Your task to perform on an android device: change the clock display to digital Image 0: 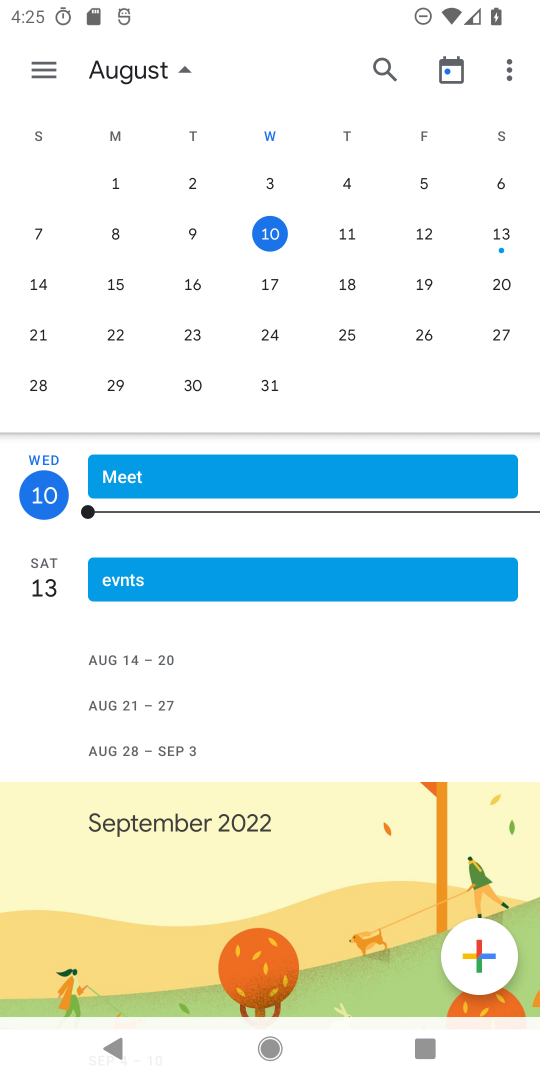
Step 0: press home button
Your task to perform on an android device: change the clock display to digital Image 1: 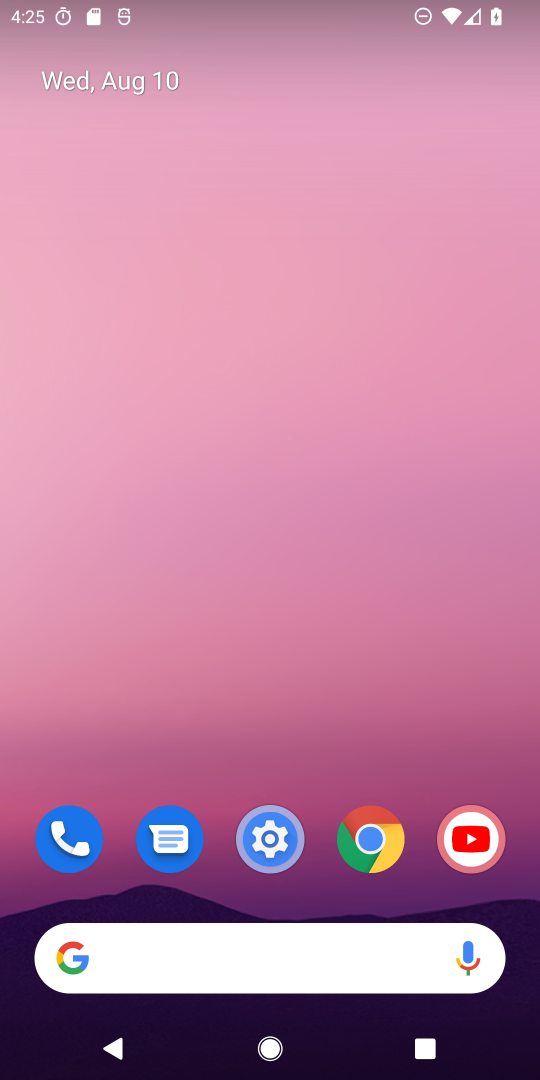
Step 1: drag from (64, 1016) to (169, 433)
Your task to perform on an android device: change the clock display to digital Image 2: 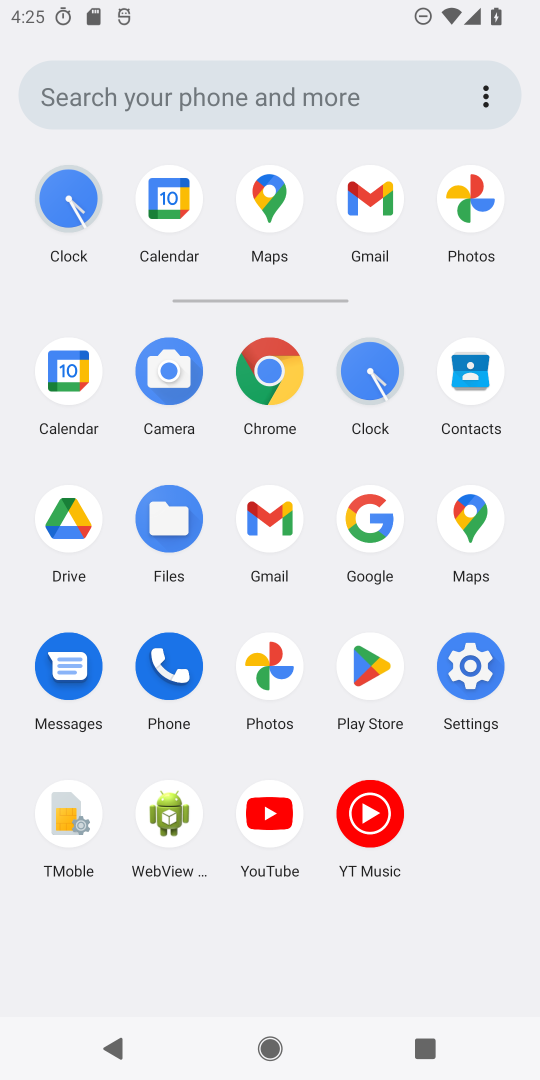
Step 2: click (384, 411)
Your task to perform on an android device: change the clock display to digital Image 3: 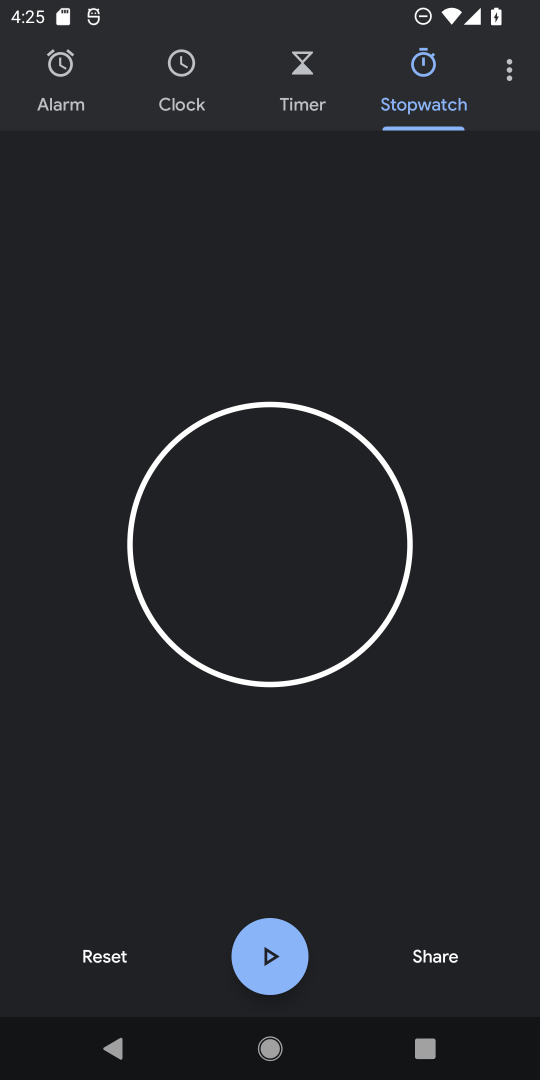
Step 3: click (172, 95)
Your task to perform on an android device: change the clock display to digital Image 4: 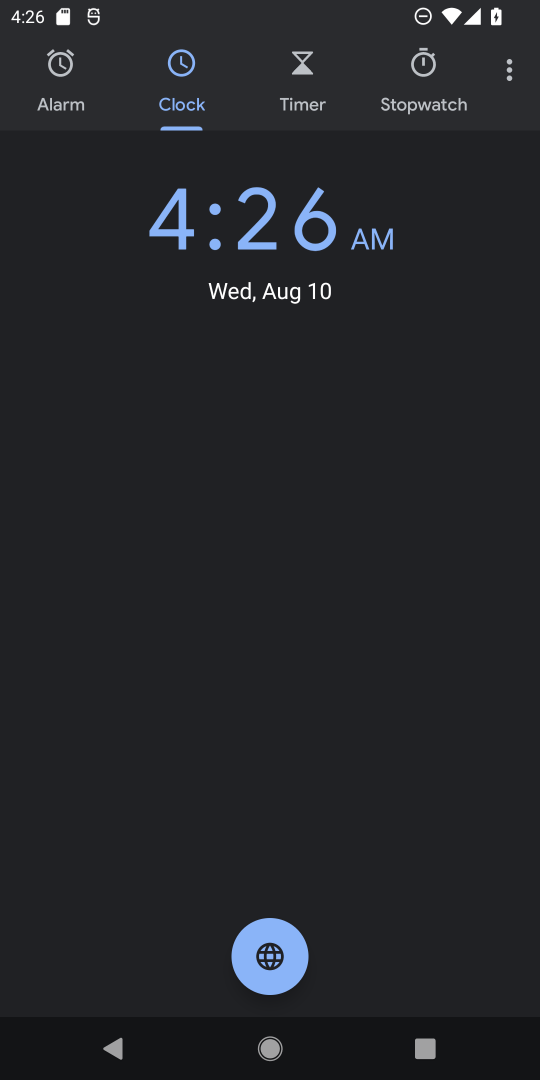
Step 4: click (499, 71)
Your task to perform on an android device: change the clock display to digital Image 5: 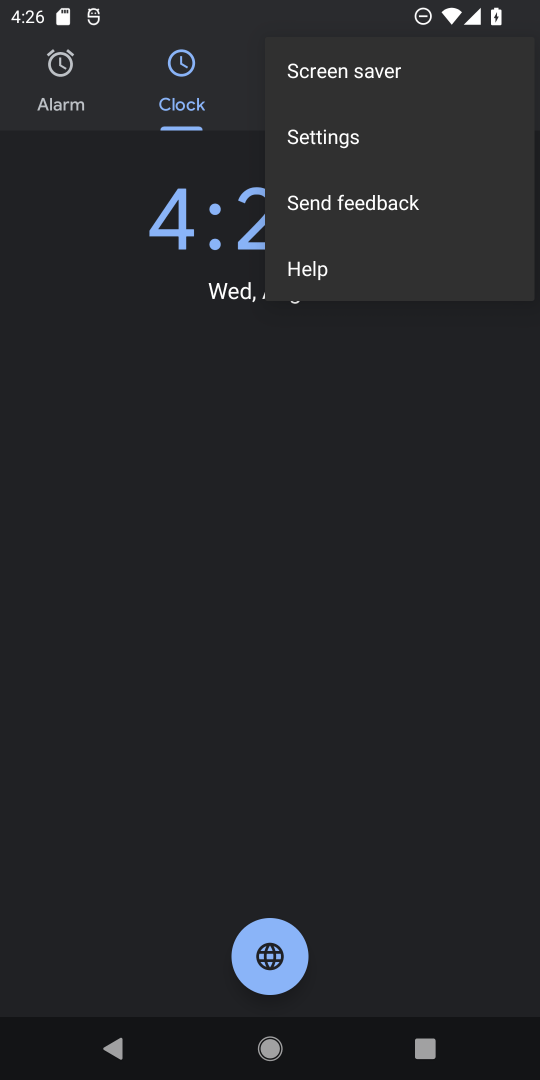
Step 5: click (305, 128)
Your task to perform on an android device: change the clock display to digital Image 6: 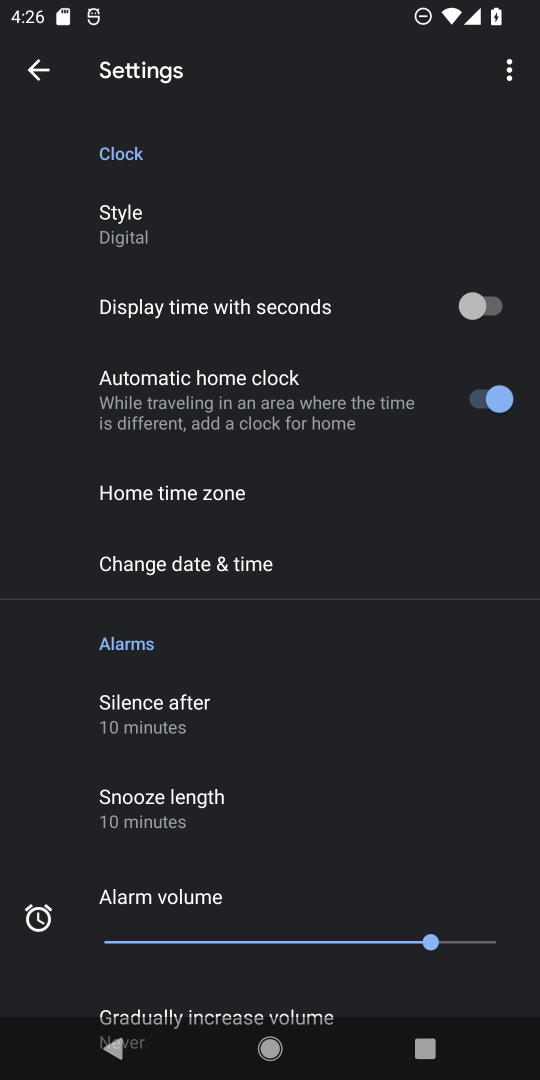
Step 6: task complete